Your task to perform on an android device: turn on location history Image 0: 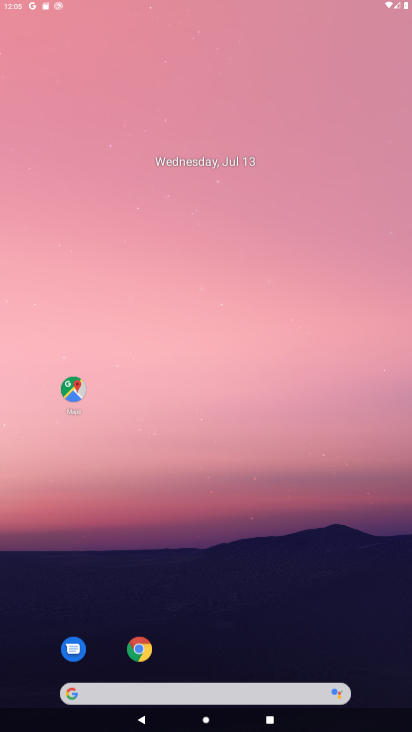
Step 0: click (236, 175)
Your task to perform on an android device: turn on location history Image 1: 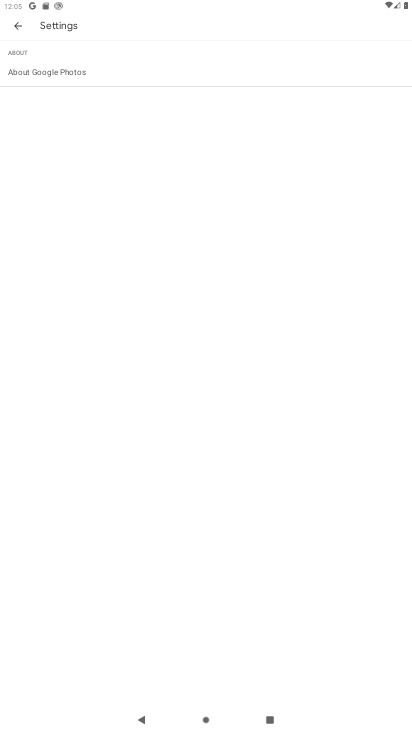
Step 1: press home button
Your task to perform on an android device: turn on location history Image 2: 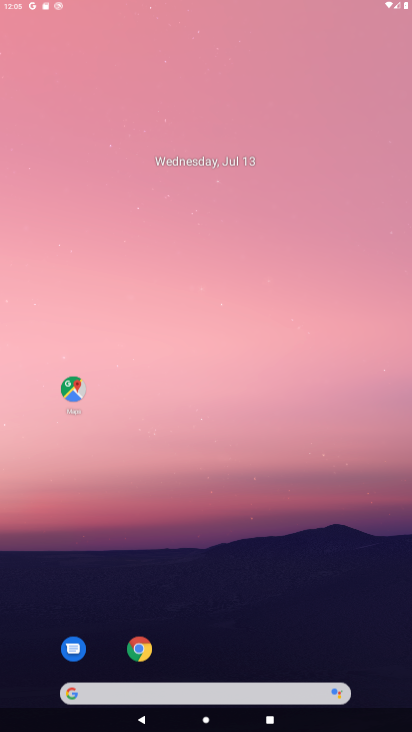
Step 2: drag from (239, 583) to (255, 199)
Your task to perform on an android device: turn on location history Image 3: 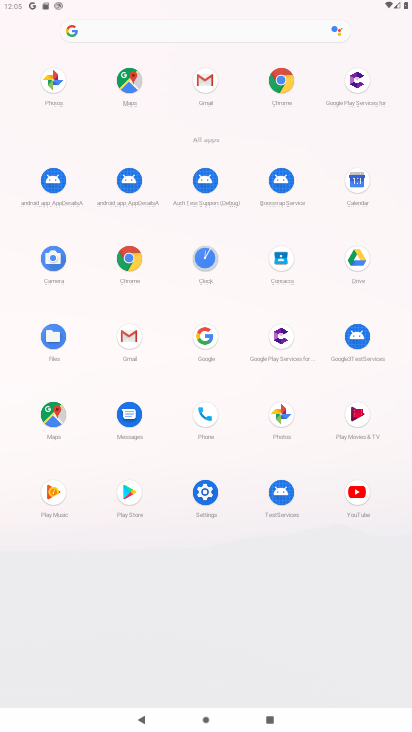
Step 3: click (203, 499)
Your task to perform on an android device: turn on location history Image 4: 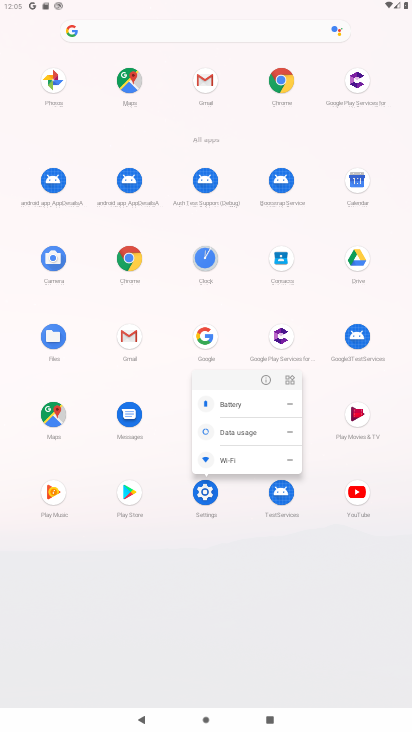
Step 4: click (269, 380)
Your task to perform on an android device: turn on location history Image 5: 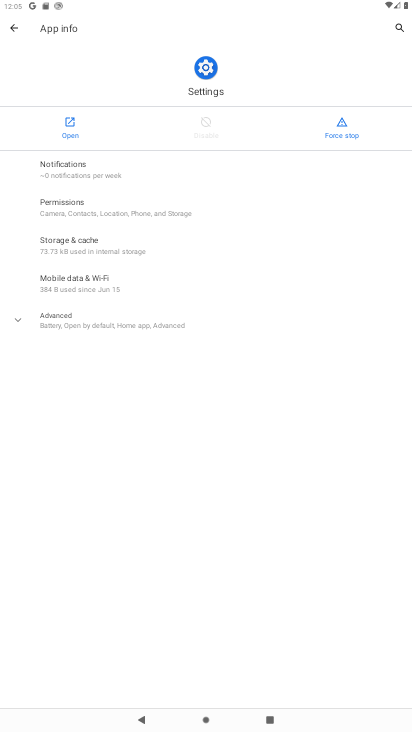
Step 5: click (70, 130)
Your task to perform on an android device: turn on location history Image 6: 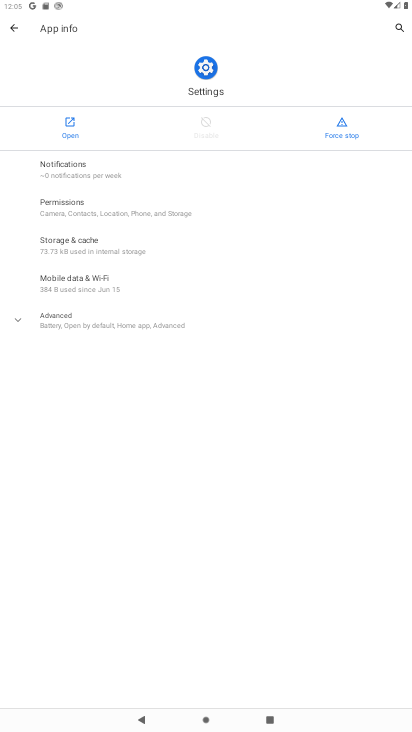
Step 6: click (70, 130)
Your task to perform on an android device: turn on location history Image 7: 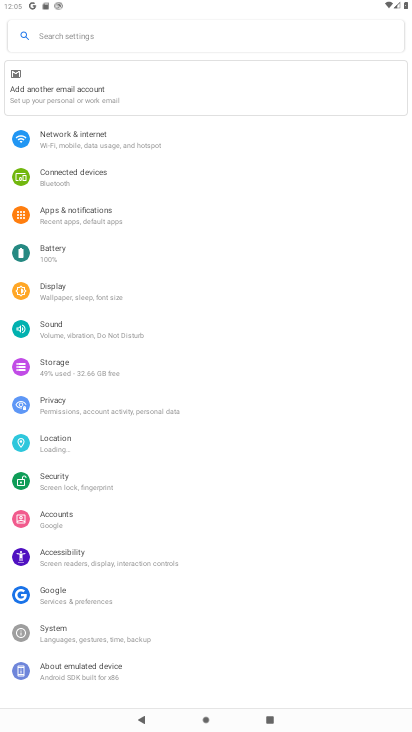
Step 7: drag from (154, 512) to (227, 256)
Your task to perform on an android device: turn on location history Image 8: 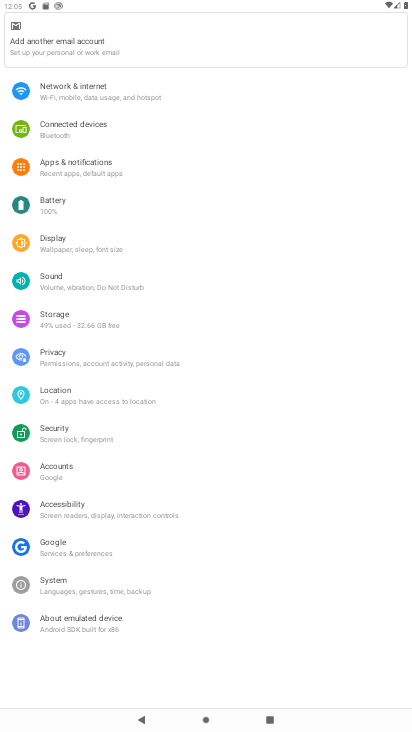
Step 8: click (92, 389)
Your task to perform on an android device: turn on location history Image 9: 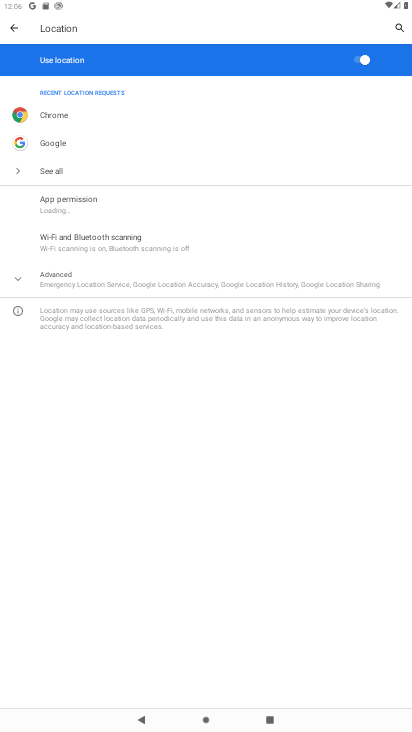
Step 9: drag from (169, 576) to (218, 242)
Your task to perform on an android device: turn on location history Image 10: 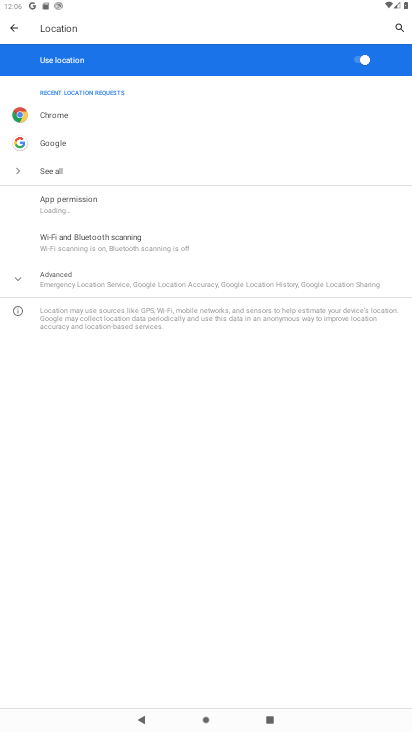
Step 10: drag from (200, 528) to (216, 267)
Your task to perform on an android device: turn on location history Image 11: 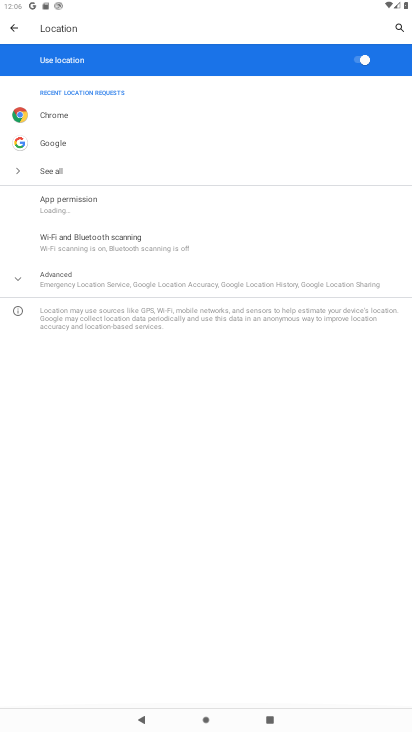
Step 11: click (80, 281)
Your task to perform on an android device: turn on location history Image 12: 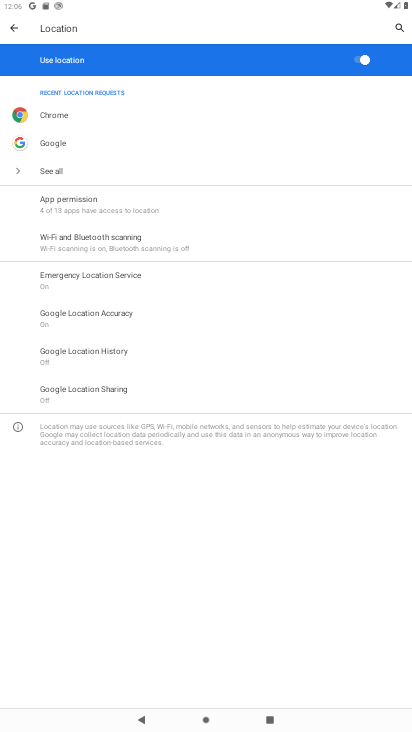
Step 12: drag from (202, 512) to (235, 276)
Your task to perform on an android device: turn on location history Image 13: 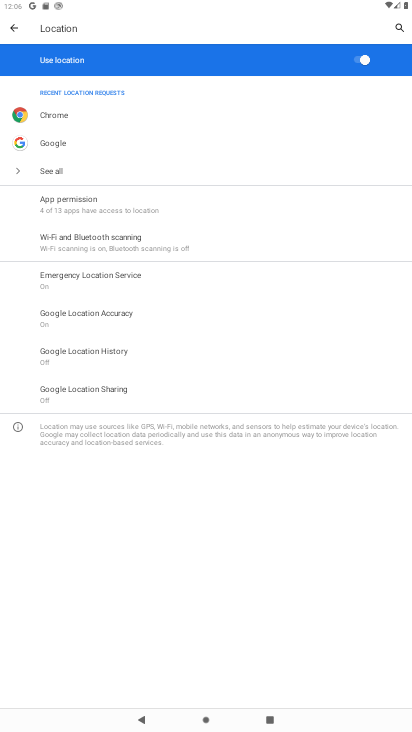
Step 13: click (118, 349)
Your task to perform on an android device: turn on location history Image 14: 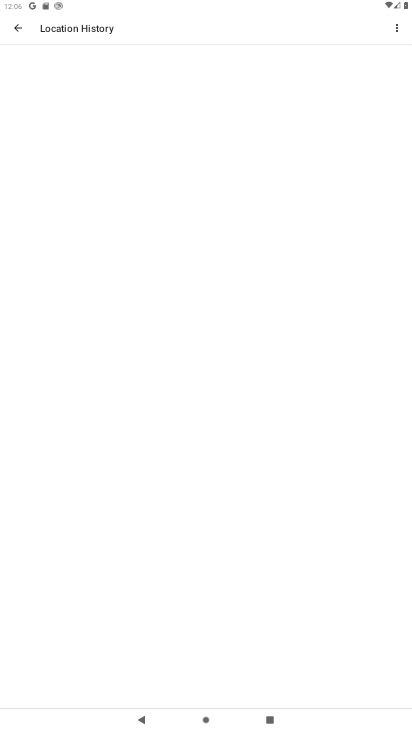
Step 14: drag from (245, 530) to (278, 362)
Your task to perform on an android device: turn on location history Image 15: 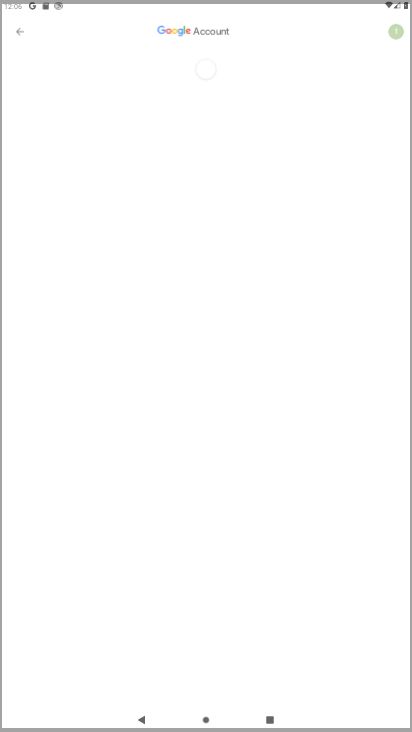
Step 15: drag from (234, 453) to (234, 170)
Your task to perform on an android device: turn on location history Image 16: 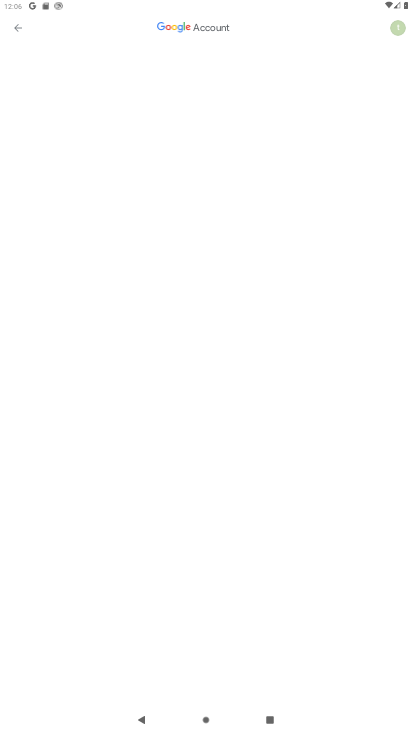
Step 16: drag from (194, 434) to (217, 191)
Your task to perform on an android device: turn on location history Image 17: 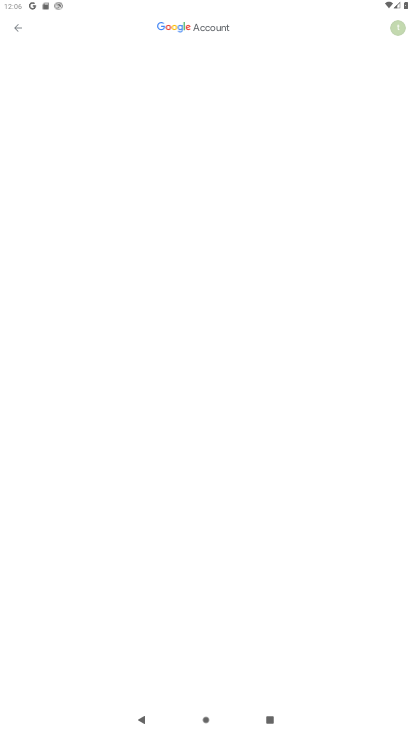
Step 17: drag from (234, 126) to (267, 633)
Your task to perform on an android device: turn on location history Image 18: 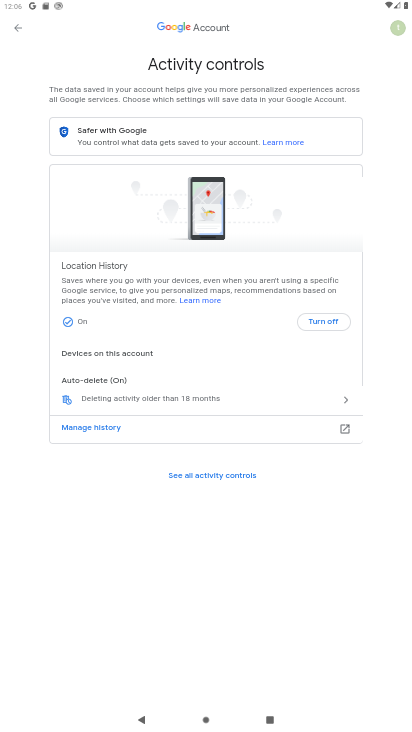
Step 18: drag from (237, 571) to (221, 292)
Your task to perform on an android device: turn on location history Image 19: 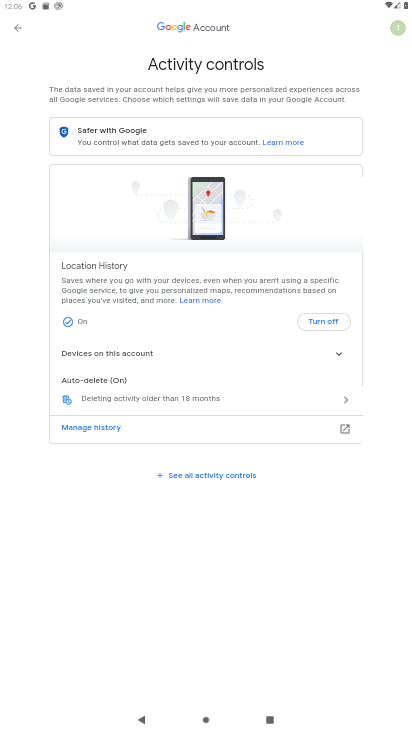
Step 19: drag from (190, 162) to (211, 447)
Your task to perform on an android device: turn on location history Image 20: 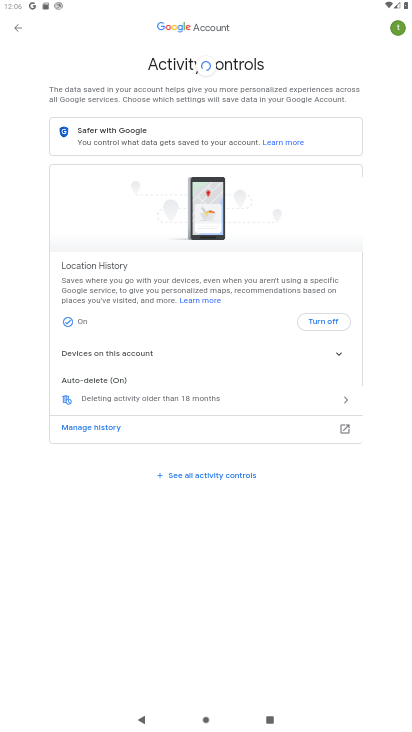
Step 20: drag from (192, 148) to (265, 633)
Your task to perform on an android device: turn on location history Image 21: 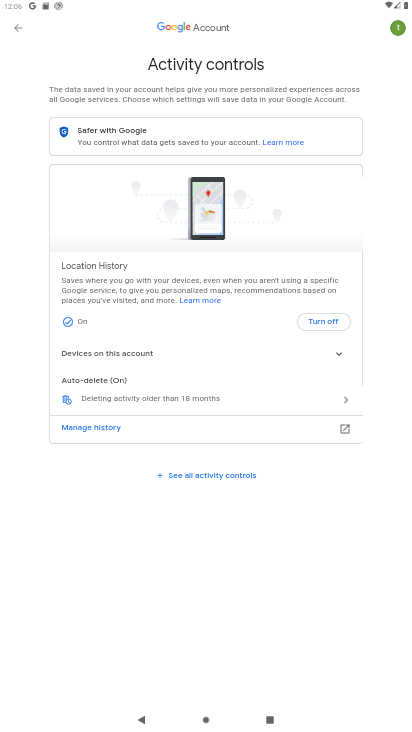
Step 21: drag from (257, 412) to (241, 305)
Your task to perform on an android device: turn on location history Image 22: 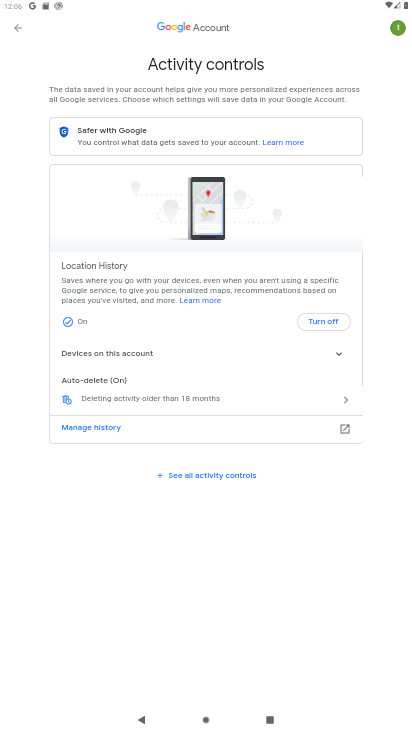
Step 22: drag from (200, 190) to (260, 514)
Your task to perform on an android device: turn on location history Image 23: 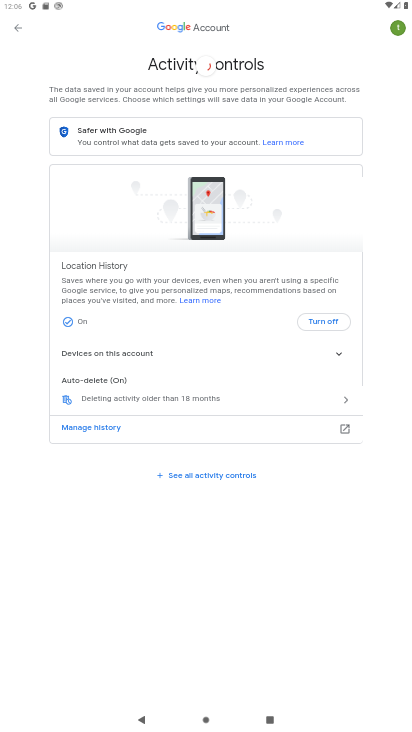
Step 23: drag from (175, 207) to (232, 463)
Your task to perform on an android device: turn on location history Image 24: 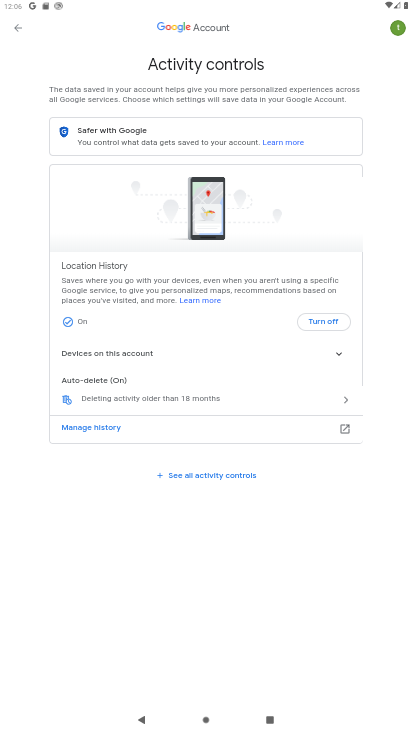
Step 24: drag from (240, 482) to (260, 340)
Your task to perform on an android device: turn on location history Image 25: 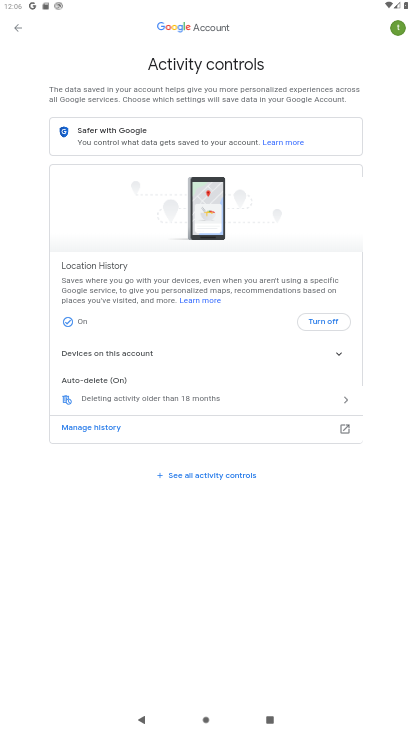
Step 25: drag from (166, 412) to (260, 201)
Your task to perform on an android device: turn on location history Image 26: 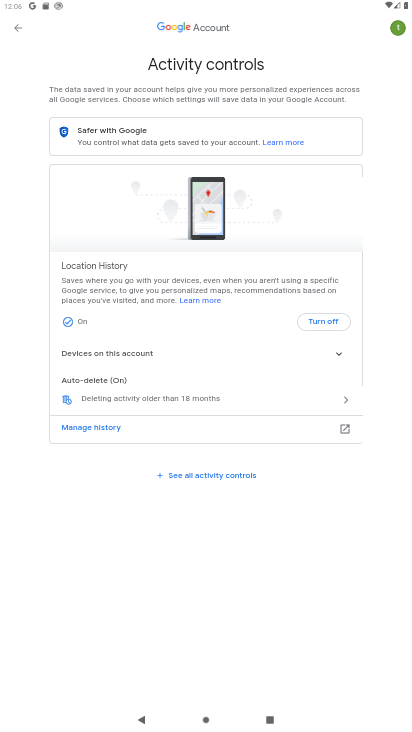
Step 26: click (336, 314)
Your task to perform on an android device: turn on location history Image 27: 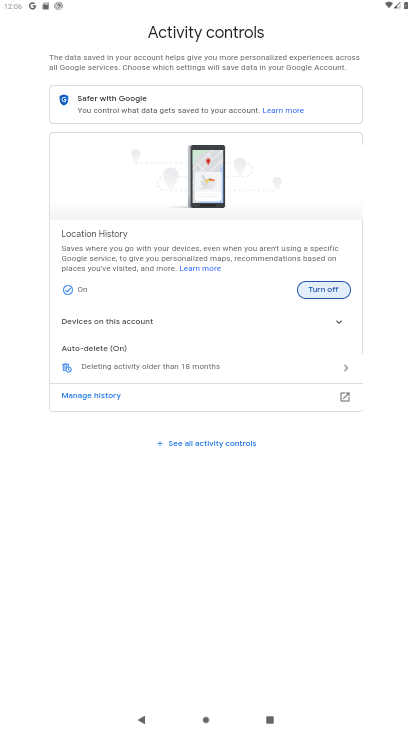
Step 27: task complete